Your task to perform on an android device: What's on my calendar today? Image 0: 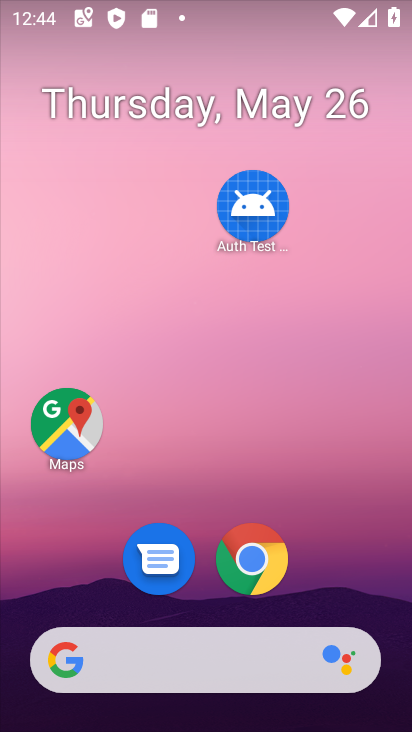
Step 0: drag from (359, 577) to (331, 81)
Your task to perform on an android device: What's on my calendar today? Image 1: 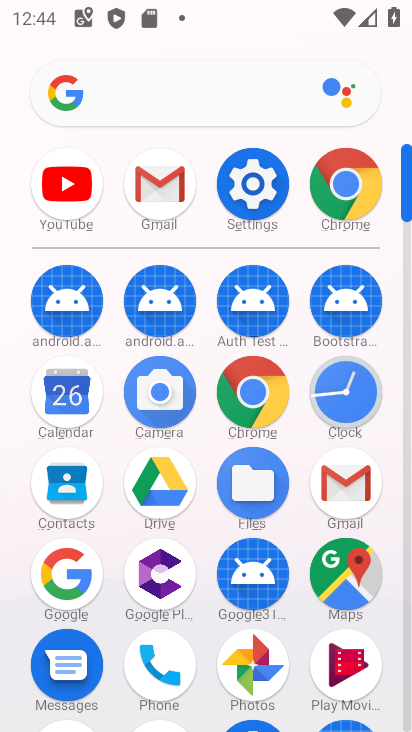
Step 1: click (75, 401)
Your task to perform on an android device: What's on my calendar today? Image 2: 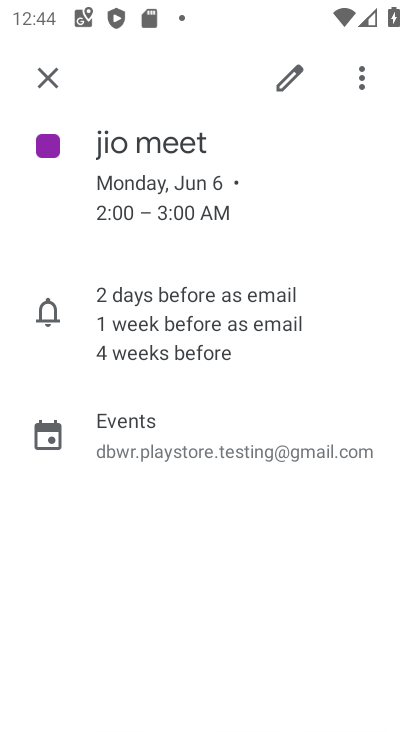
Step 2: click (53, 71)
Your task to perform on an android device: What's on my calendar today? Image 3: 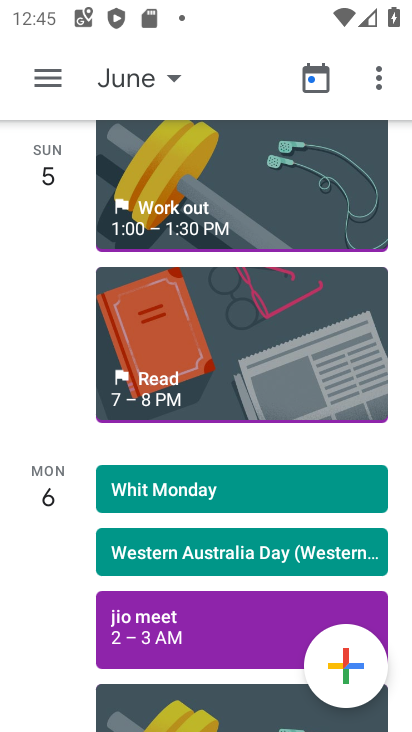
Step 3: click (53, 81)
Your task to perform on an android device: What's on my calendar today? Image 4: 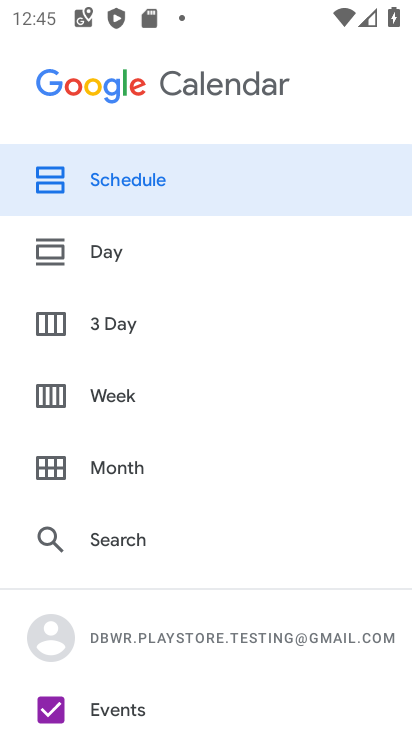
Step 4: click (105, 252)
Your task to perform on an android device: What's on my calendar today? Image 5: 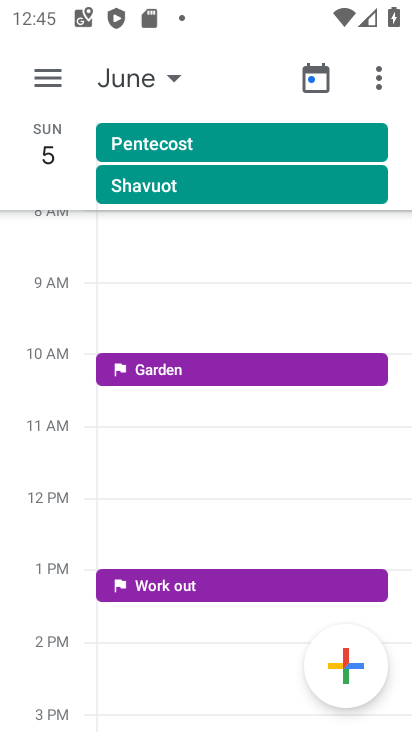
Step 5: click (135, 76)
Your task to perform on an android device: What's on my calendar today? Image 6: 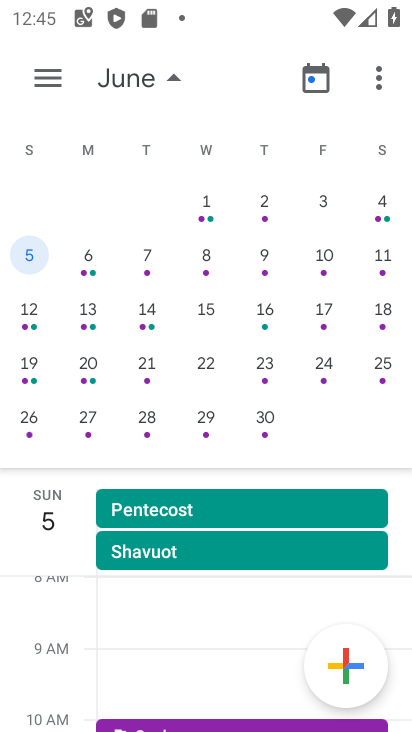
Step 6: drag from (64, 307) to (407, 365)
Your task to perform on an android device: What's on my calendar today? Image 7: 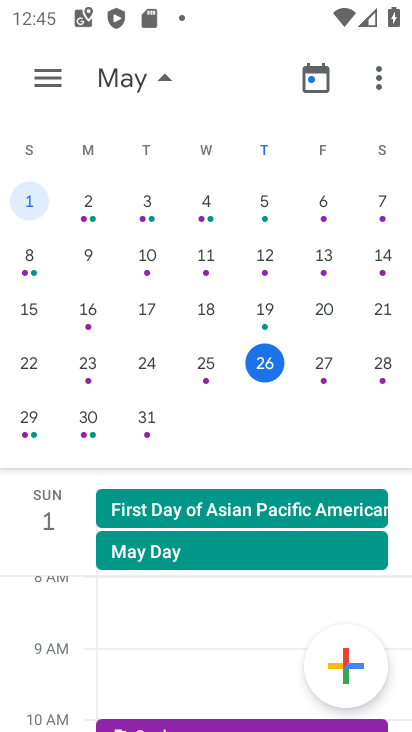
Step 7: click (264, 362)
Your task to perform on an android device: What's on my calendar today? Image 8: 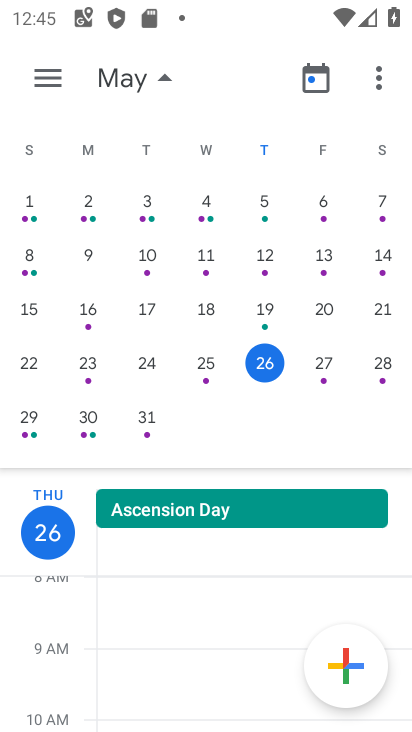
Step 8: task complete